Your task to perform on an android device: Open Google Image 0: 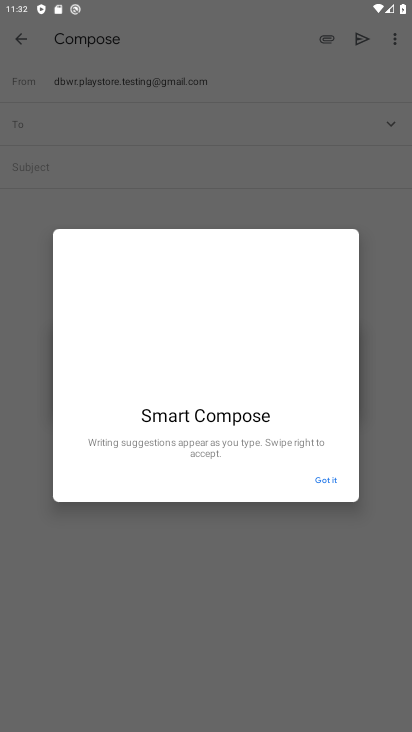
Step 0: press home button
Your task to perform on an android device: Open Google Image 1: 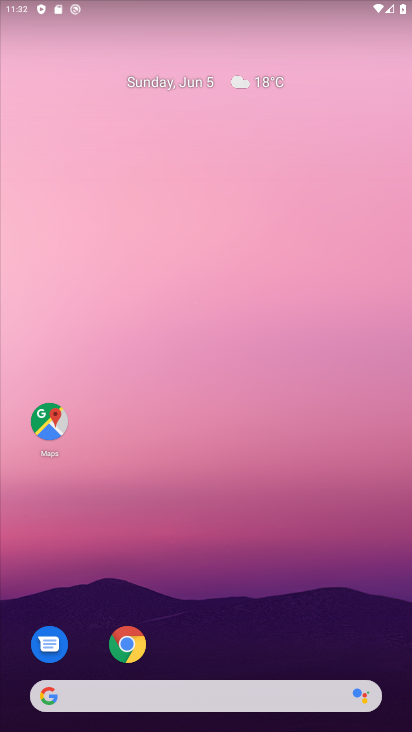
Step 1: drag from (238, 710) to (201, 203)
Your task to perform on an android device: Open Google Image 2: 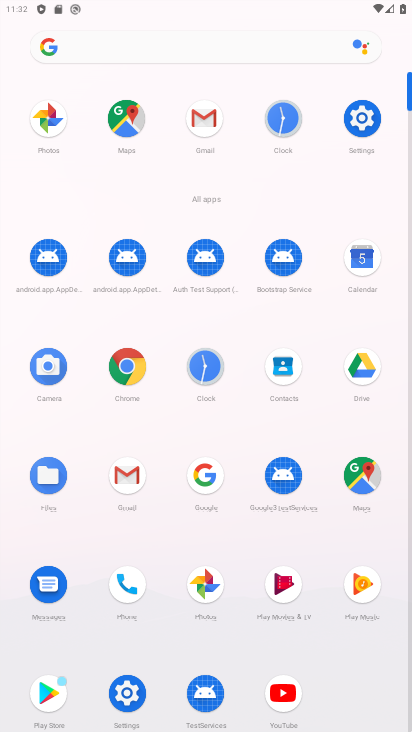
Step 2: click (126, 372)
Your task to perform on an android device: Open Google Image 3: 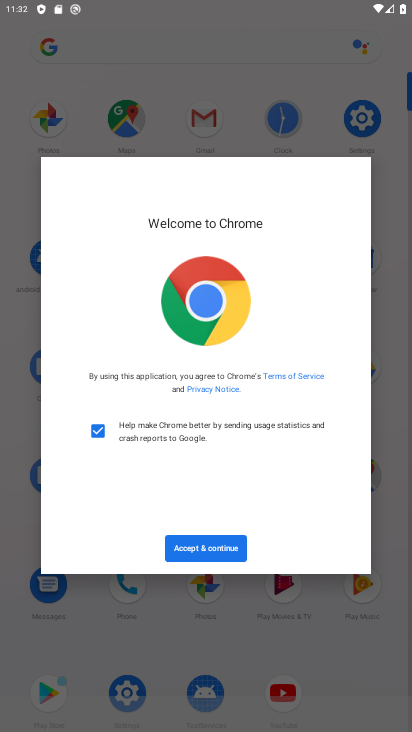
Step 3: click (205, 539)
Your task to perform on an android device: Open Google Image 4: 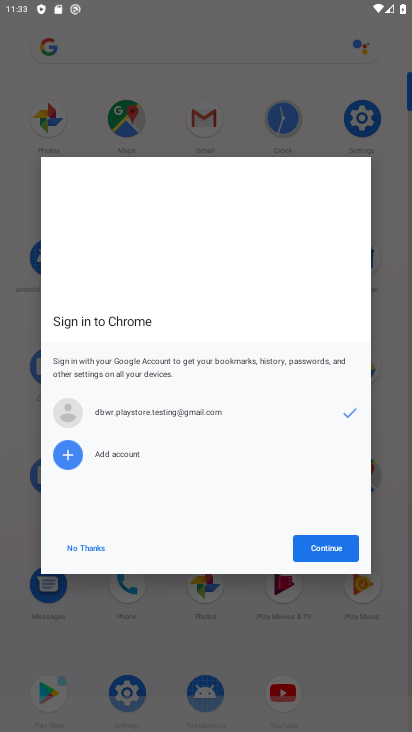
Step 4: click (332, 543)
Your task to perform on an android device: Open Google Image 5: 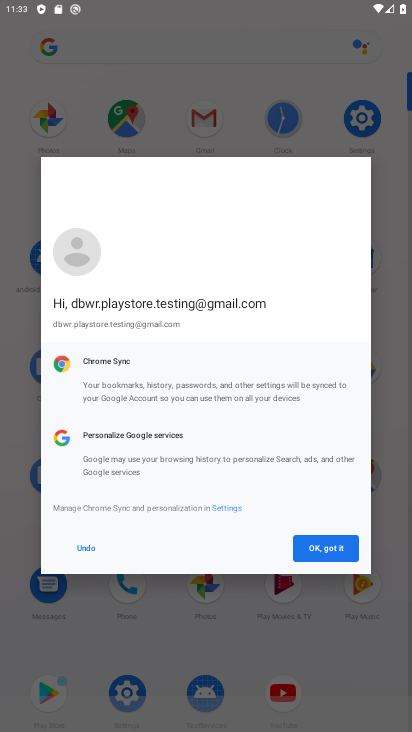
Step 5: click (342, 544)
Your task to perform on an android device: Open Google Image 6: 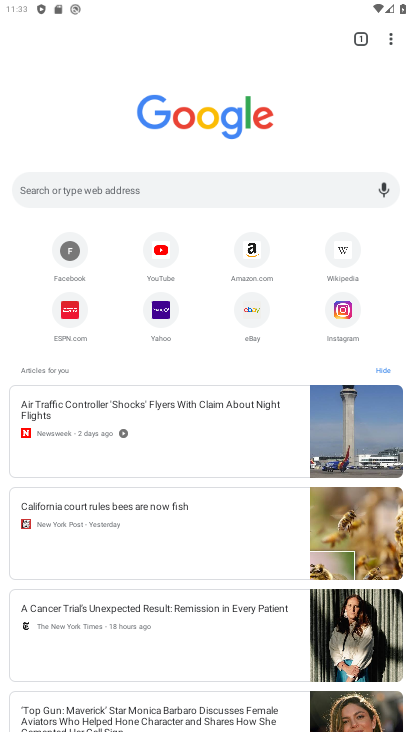
Step 6: task complete